Your task to perform on an android device: turn off notifications in google photos Image 0: 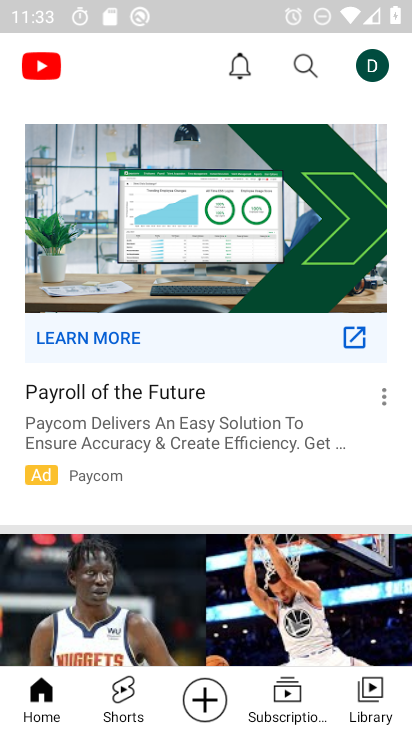
Step 0: press home button
Your task to perform on an android device: turn off notifications in google photos Image 1: 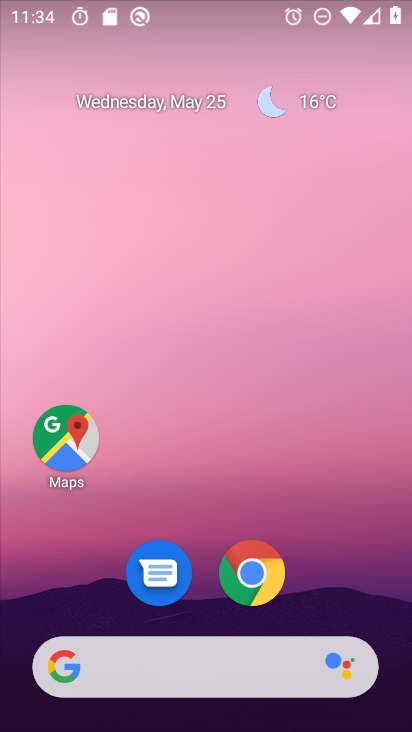
Step 1: drag from (380, 618) to (389, 4)
Your task to perform on an android device: turn off notifications in google photos Image 2: 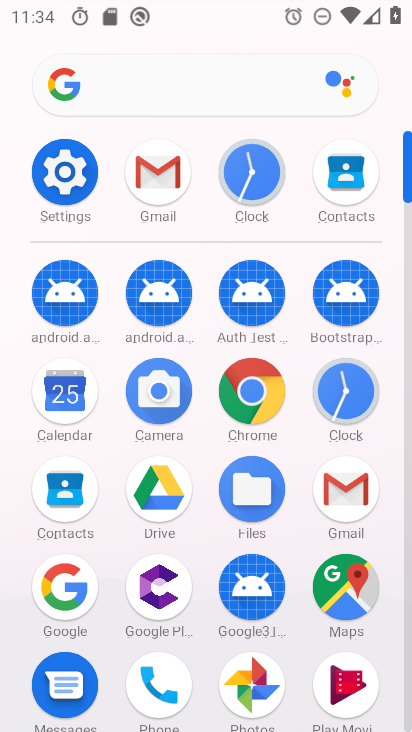
Step 2: click (255, 692)
Your task to perform on an android device: turn off notifications in google photos Image 3: 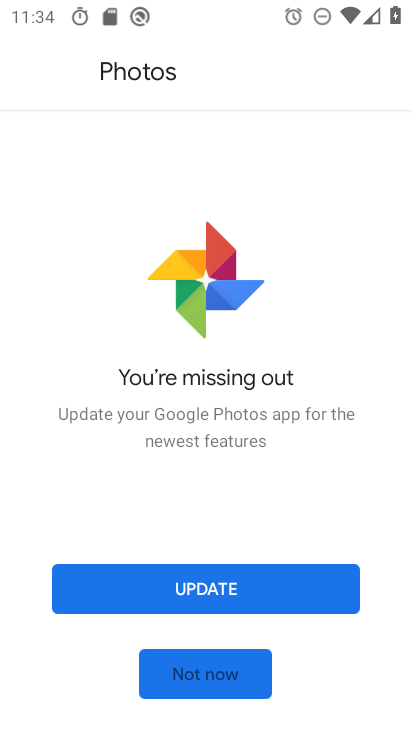
Step 3: click (210, 670)
Your task to perform on an android device: turn off notifications in google photos Image 4: 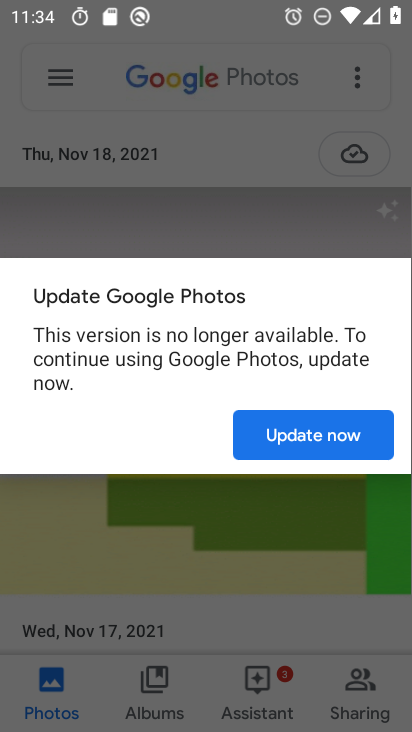
Step 4: click (307, 439)
Your task to perform on an android device: turn off notifications in google photos Image 5: 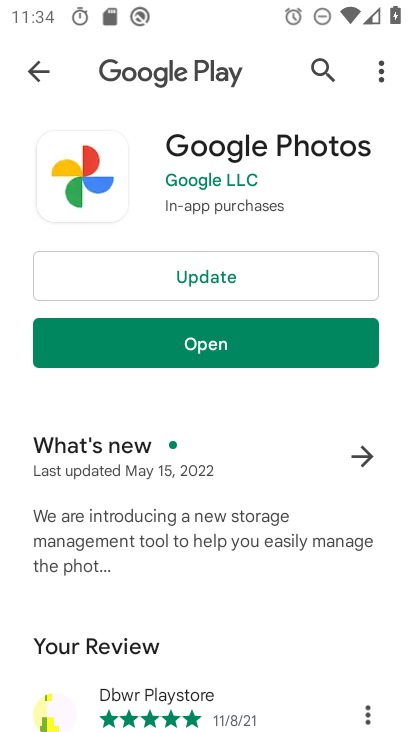
Step 5: click (212, 345)
Your task to perform on an android device: turn off notifications in google photos Image 6: 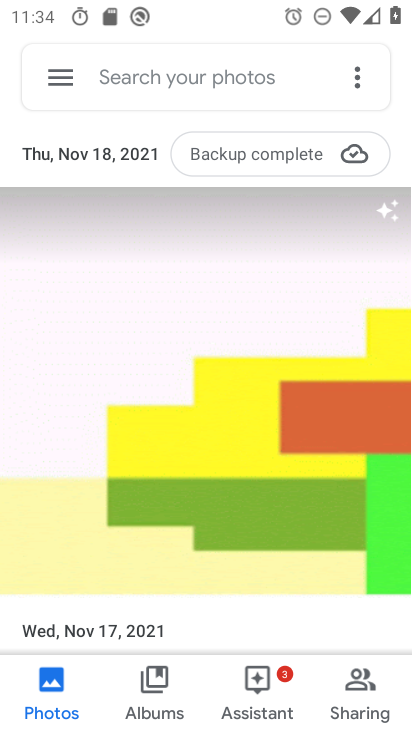
Step 6: click (56, 80)
Your task to perform on an android device: turn off notifications in google photos Image 7: 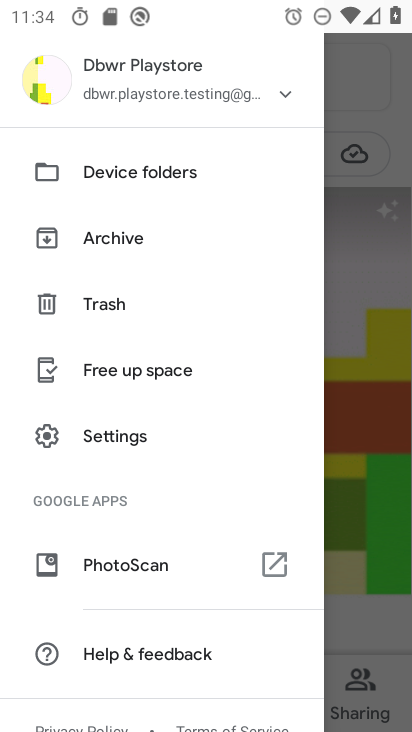
Step 7: click (104, 439)
Your task to perform on an android device: turn off notifications in google photos Image 8: 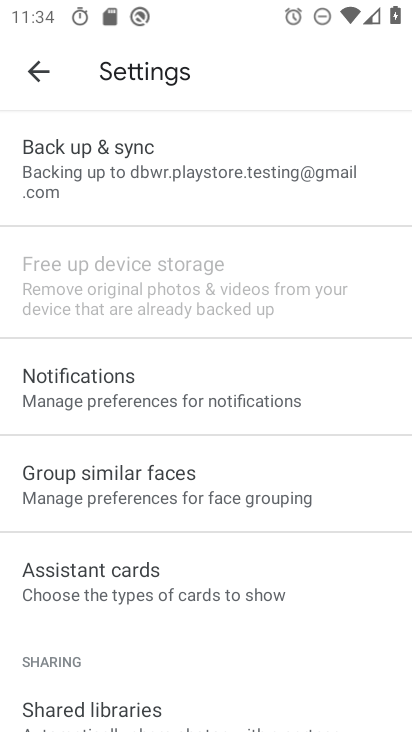
Step 8: click (103, 404)
Your task to perform on an android device: turn off notifications in google photos Image 9: 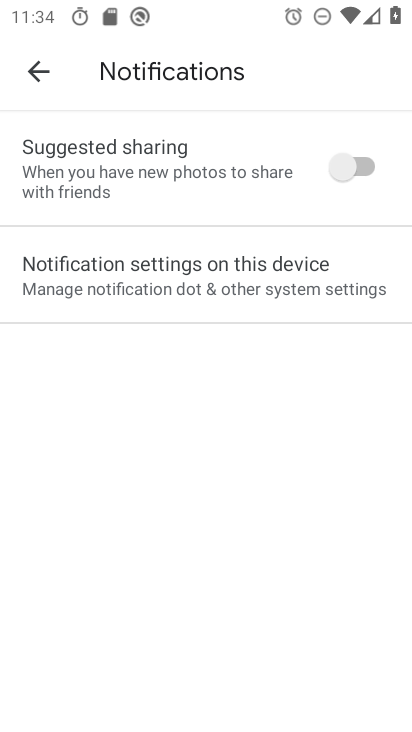
Step 9: click (210, 279)
Your task to perform on an android device: turn off notifications in google photos Image 10: 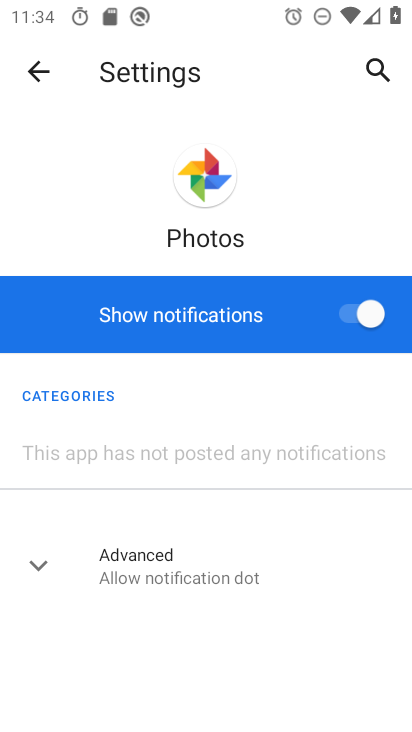
Step 10: click (359, 315)
Your task to perform on an android device: turn off notifications in google photos Image 11: 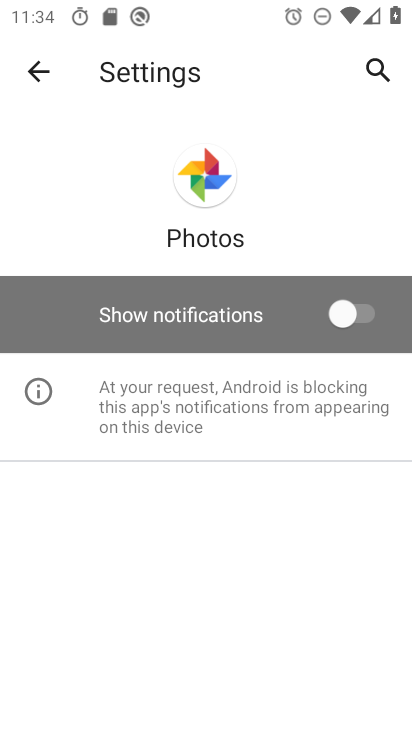
Step 11: task complete